Your task to perform on an android device: Show the shopping cart on ebay. Image 0: 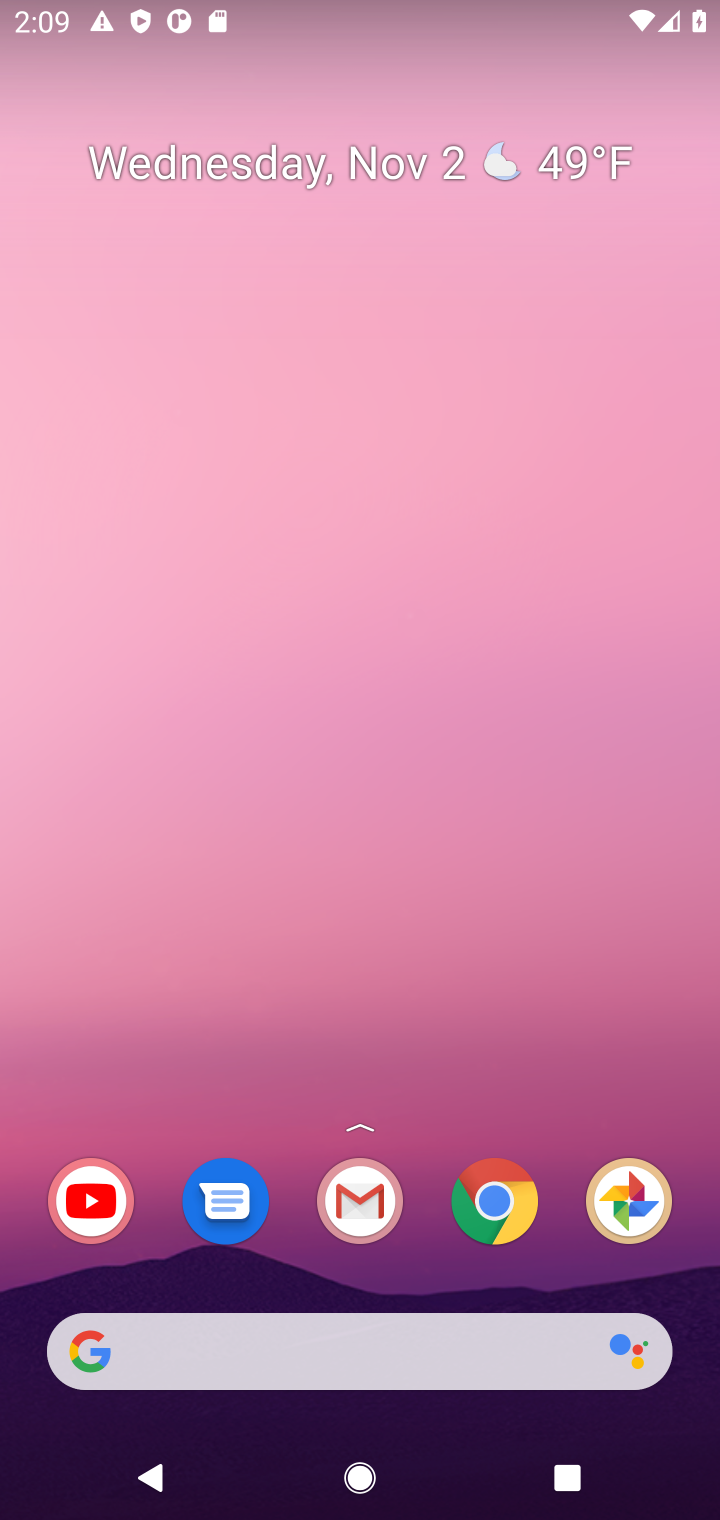
Step 0: click (491, 1215)
Your task to perform on an android device: Show the shopping cart on ebay. Image 1: 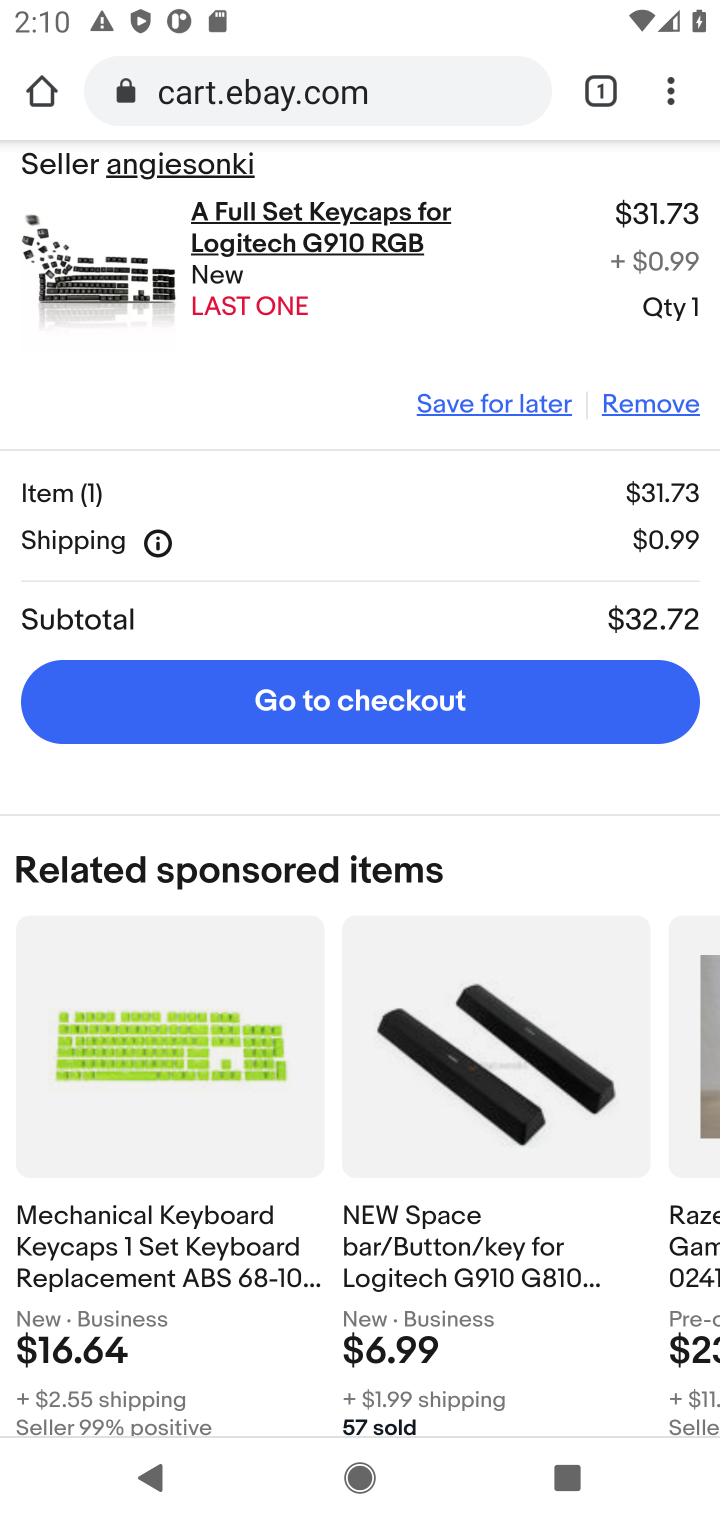
Step 1: drag from (526, 192) to (375, 1090)
Your task to perform on an android device: Show the shopping cart on ebay. Image 2: 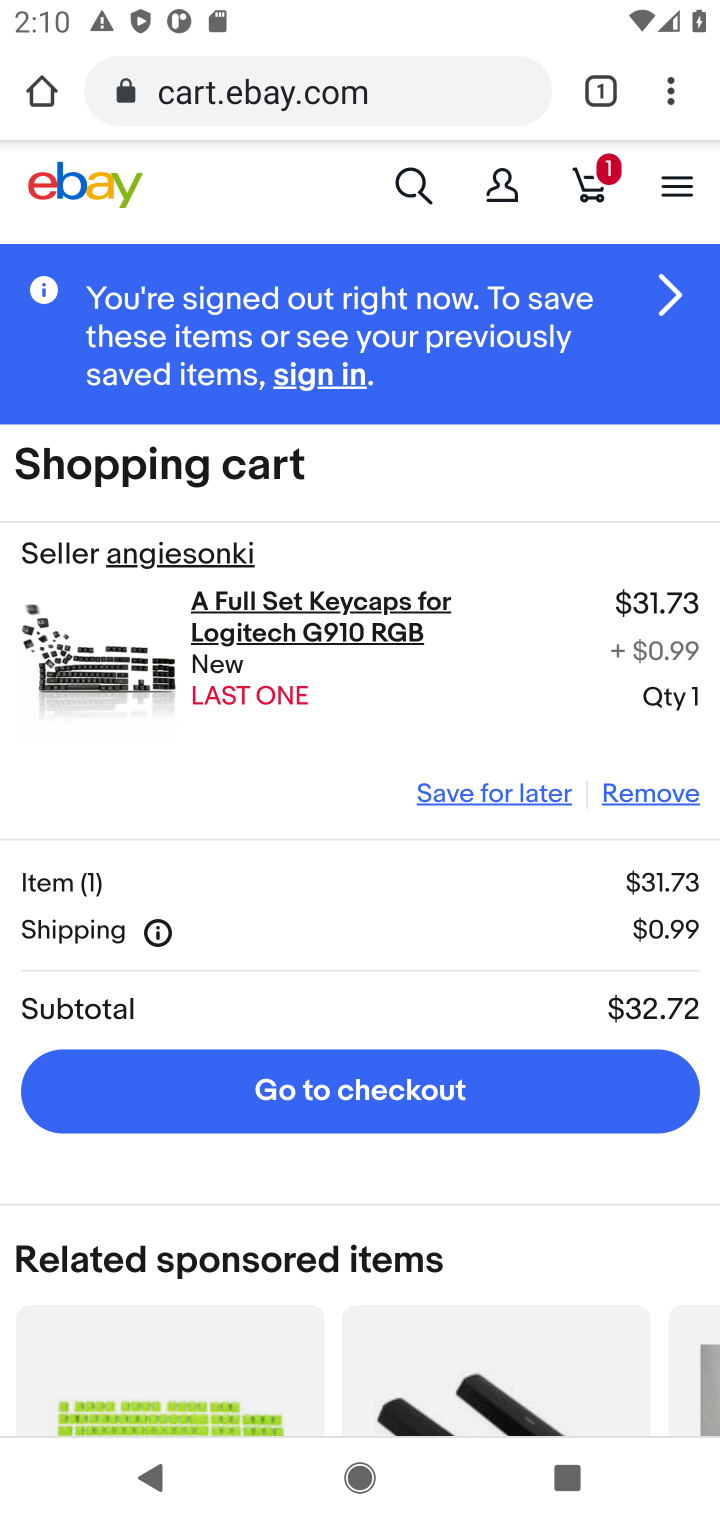
Step 2: click (409, 173)
Your task to perform on an android device: Show the shopping cart on ebay. Image 3: 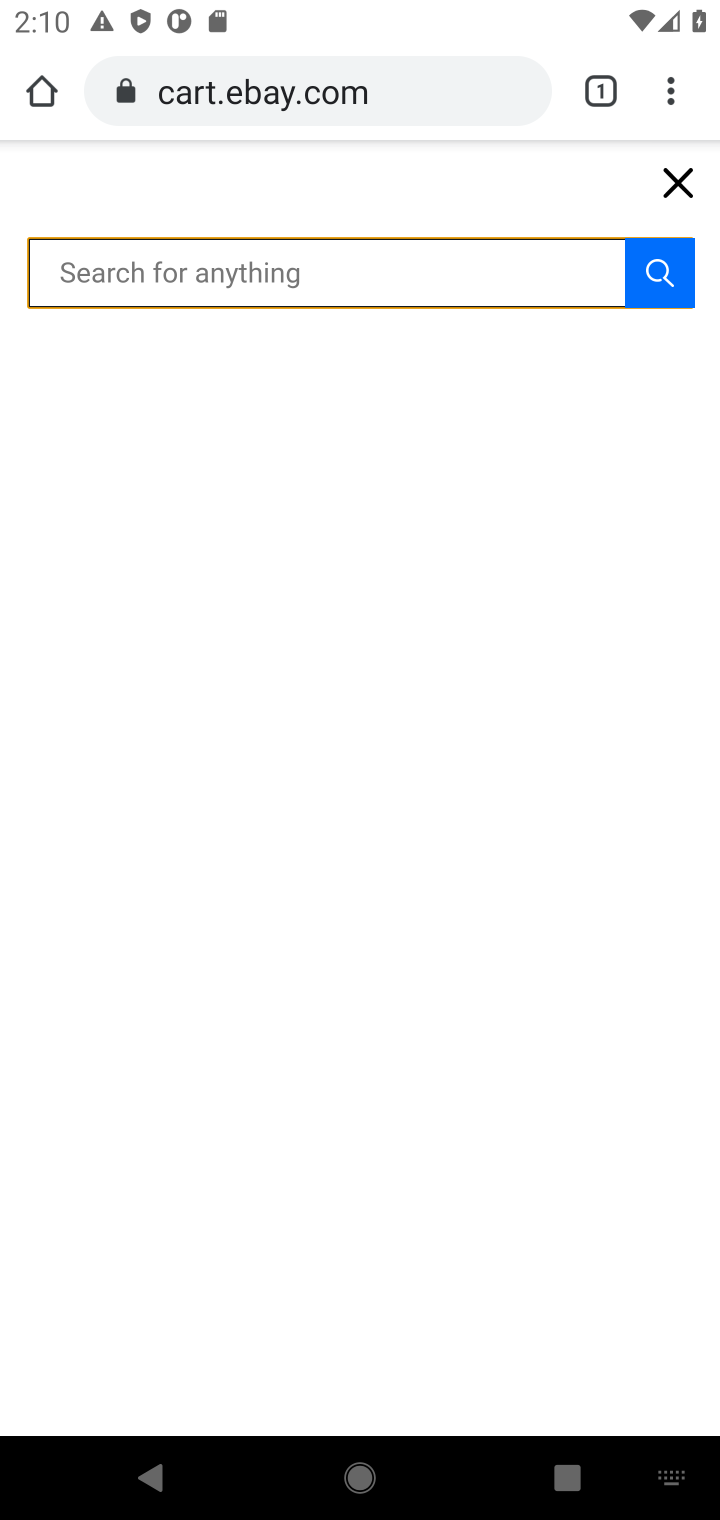
Step 3: click (683, 185)
Your task to perform on an android device: Show the shopping cart on ebay. Image 4: 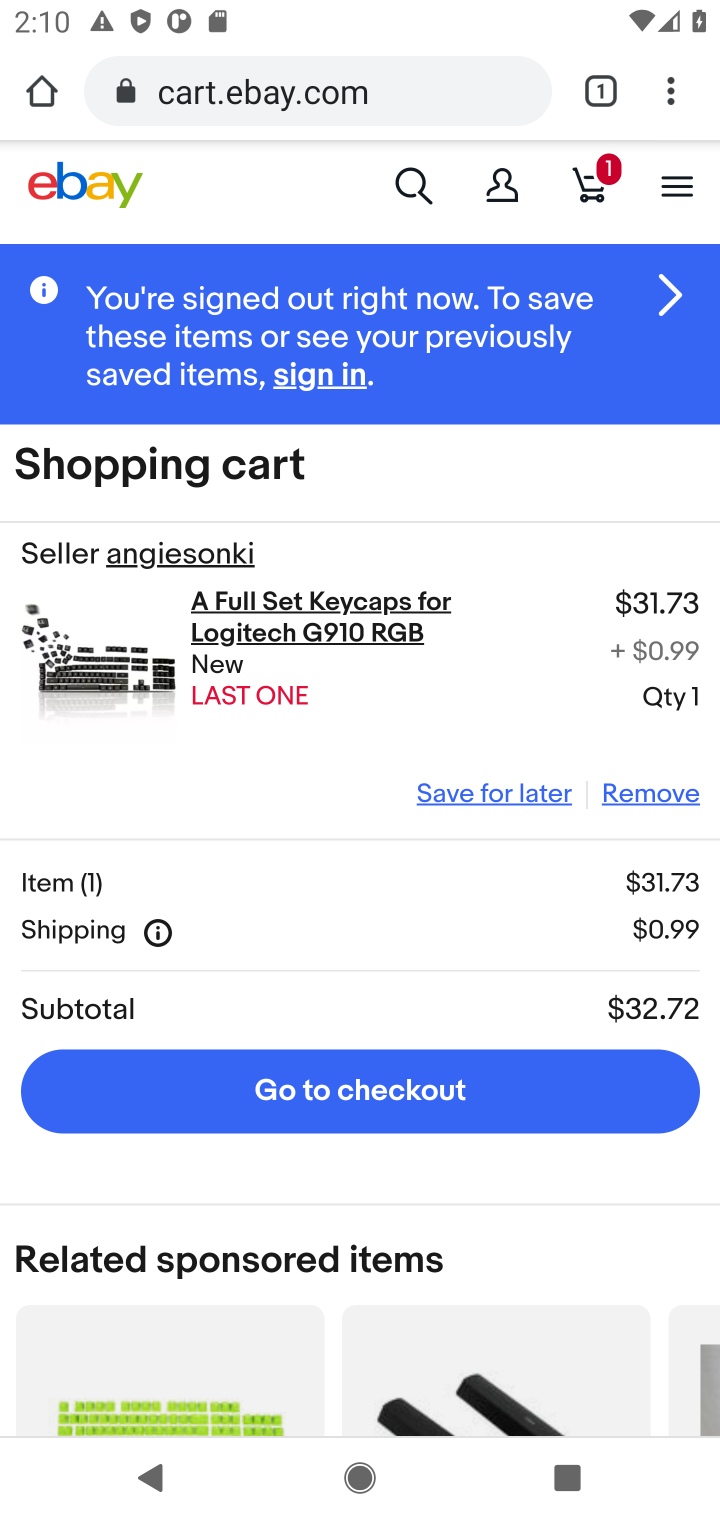
Step 4: click (596, 184)
Your task to perform on an android device: Show the shopping cart on ebay. Image 5: 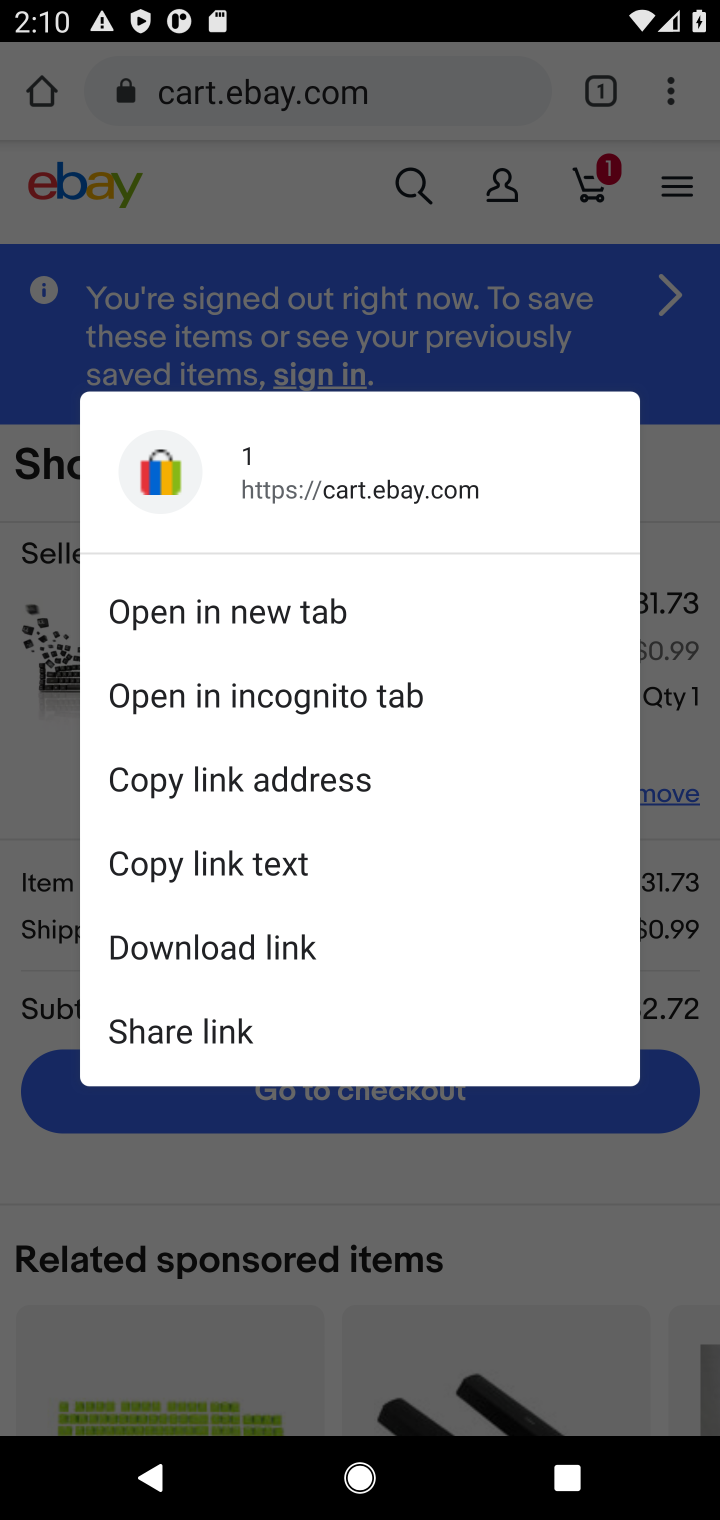
Step 5: click (600, 182)
Your task to perform on an android device: Show the shopping cart on ebay. Image 6: 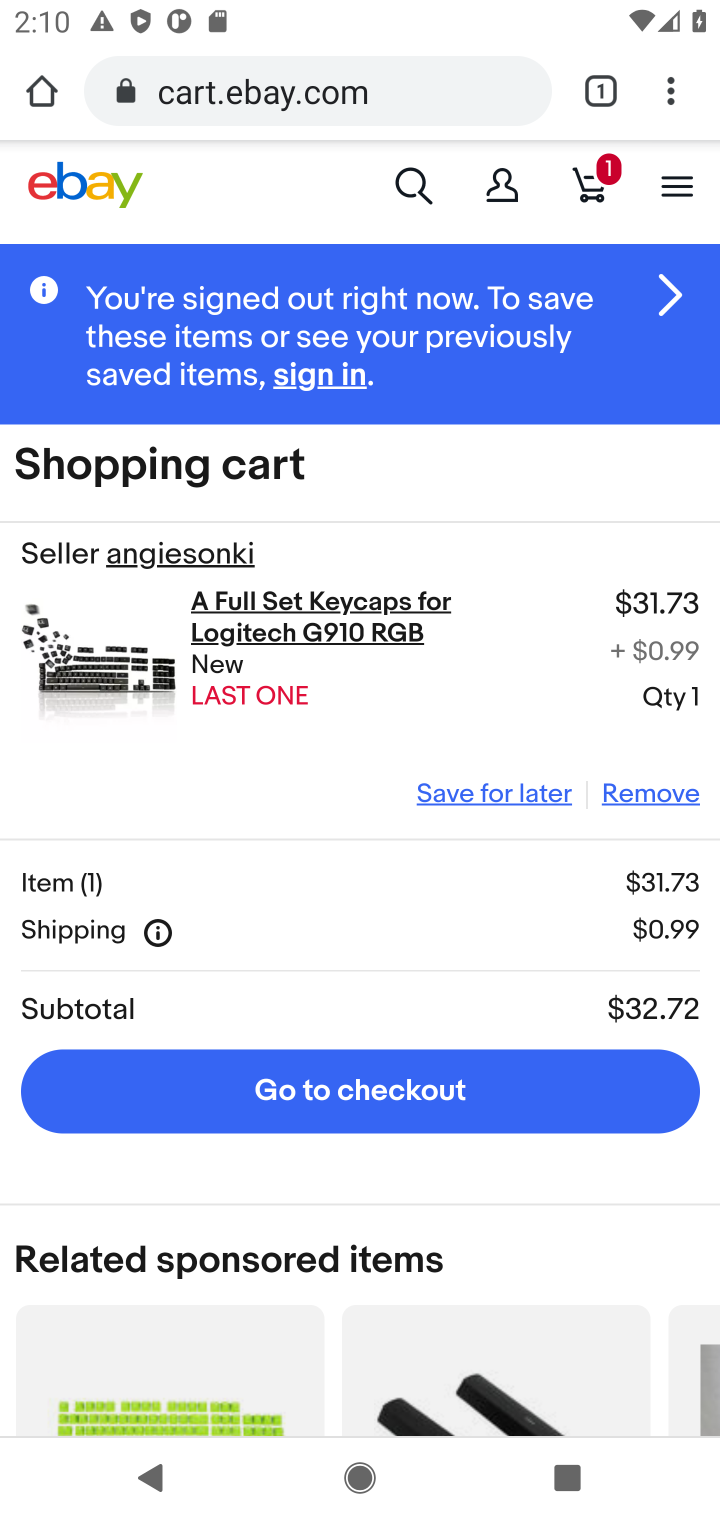
Step 6: click (605, 176)
Your task to perform on an android device: Show the shopping cart on ebay. Image 7: 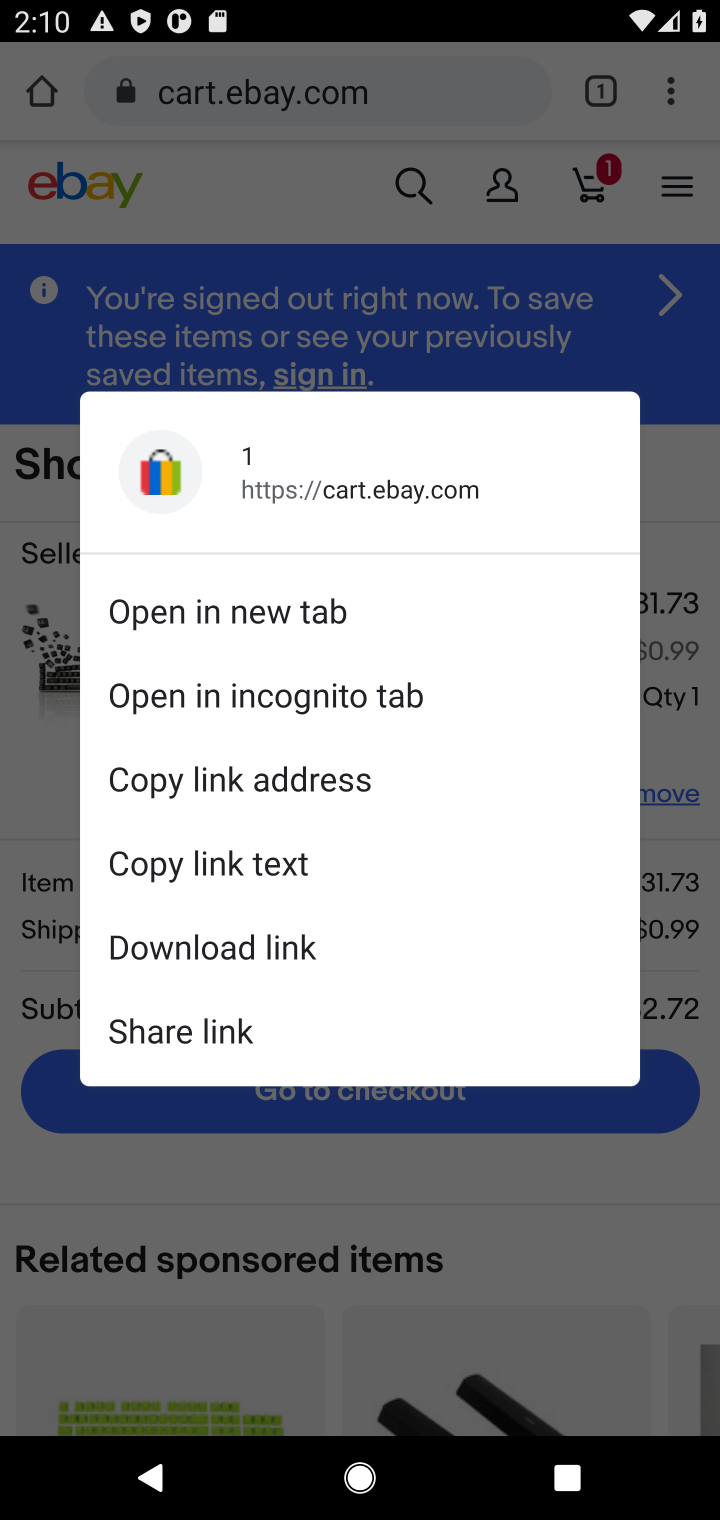
Step 7: click (605, 173)
Your task to perform on an android device: Show the shopping cart on ebay. Image 8: 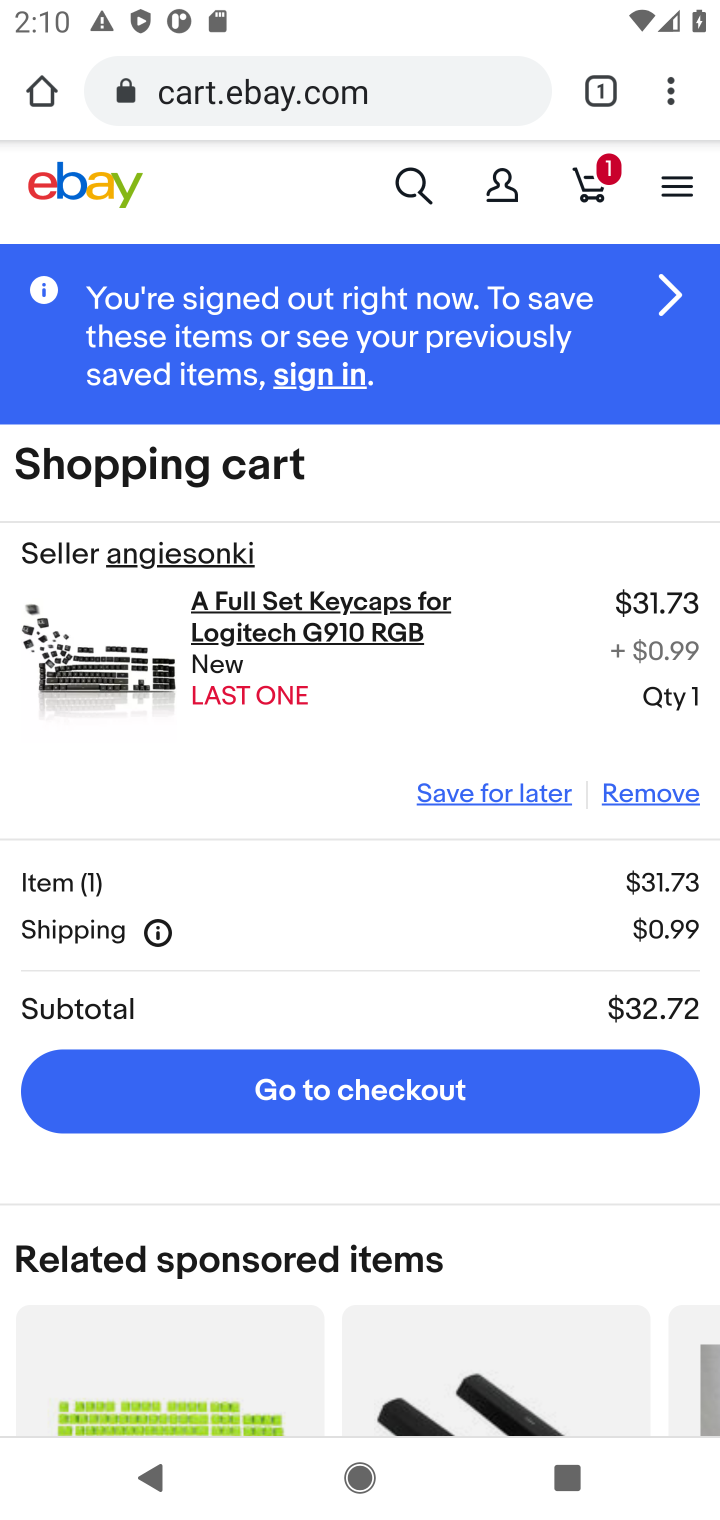
Step 8: click (596, 179)
Your task to perform on an android device: Show the shopping cart on ebay. Image 9: 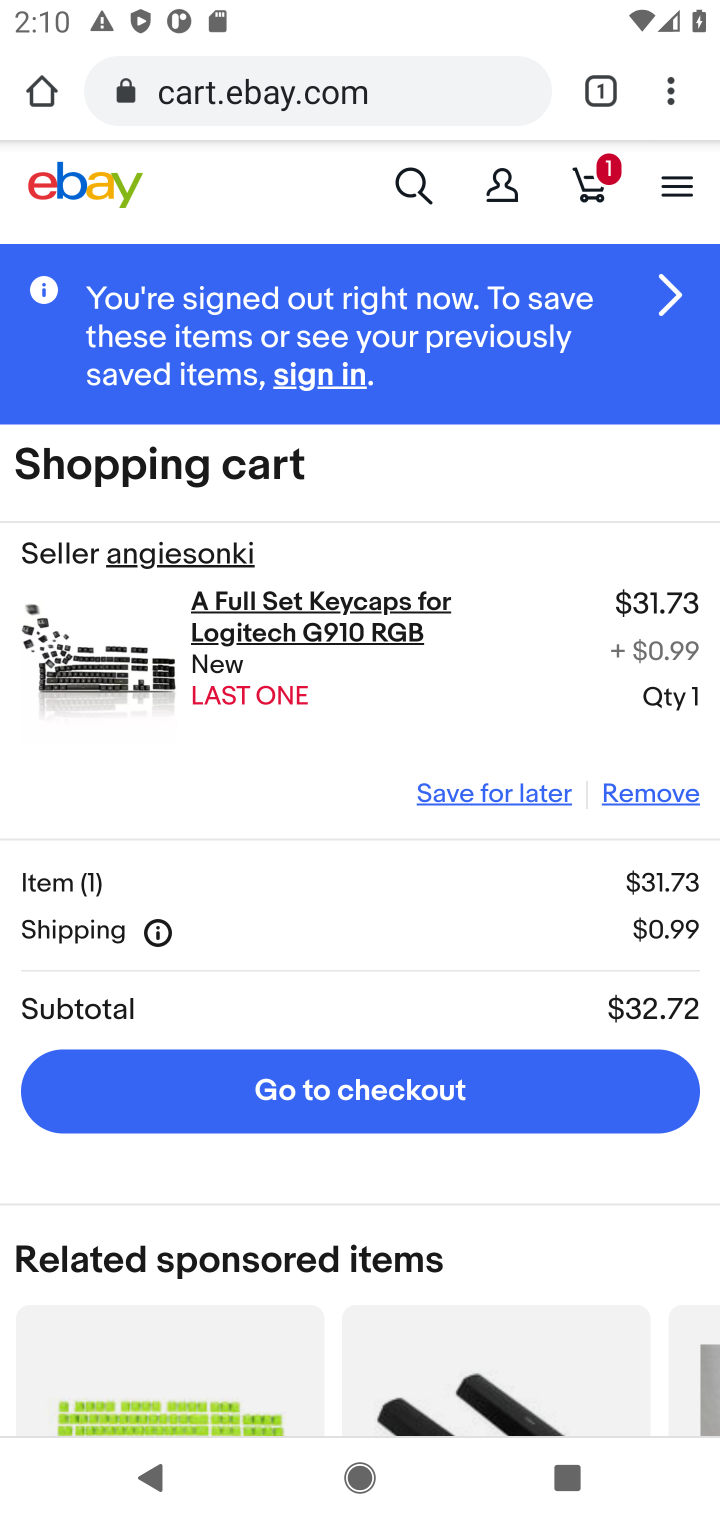
Step 9: task complete